Your task to perform on an android device: toggle data saver in the chrome app Image 0: 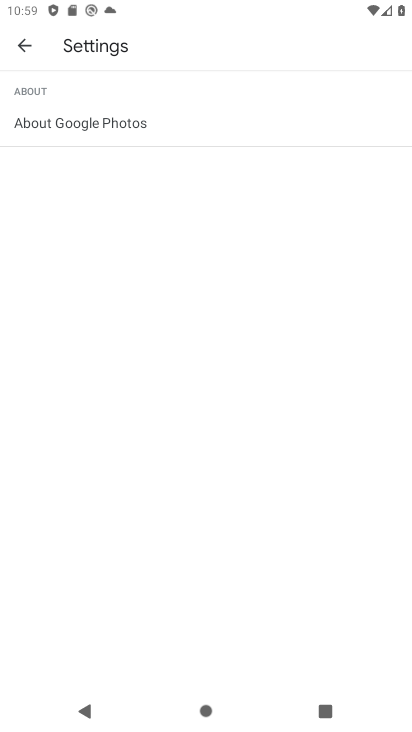
Step 0: press home button
Your task to perform on an android device: toggle data saver in the chrome app Image 1: 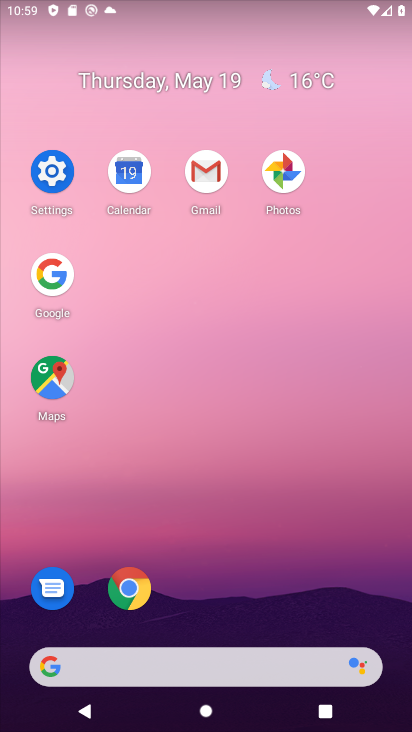
Step 1: click (139, 593)
Your task to perform on an android device: toggle data saver in the chrome app Image 2: 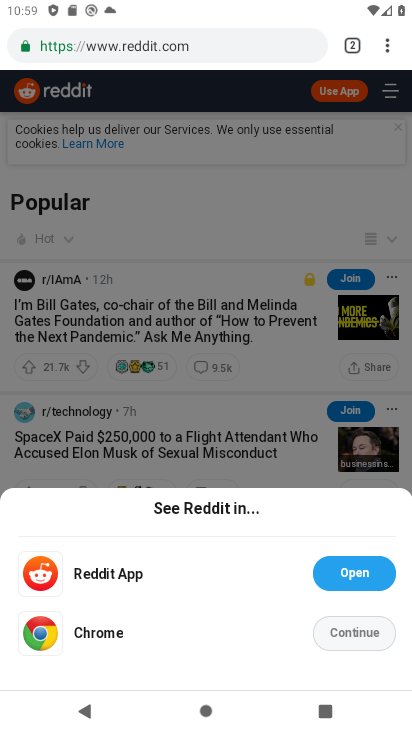
Step 2: click (386, 45)
Your task to perform on an android device: toggle data saver in the chrome app Image 3: 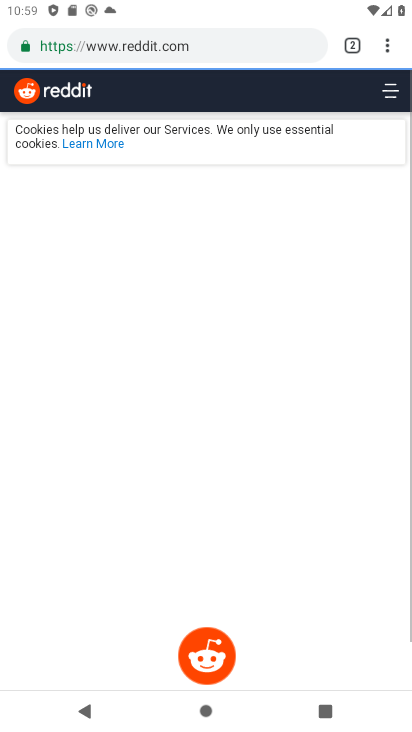
Step 3: click (400, 52)
Your task to perform on an android device: toggle data saver in the chrome app Image 4: 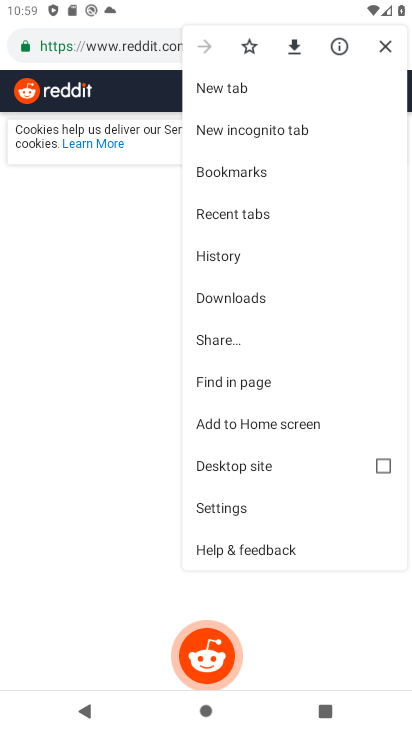
Step 4: click (267, 513)
Your task to perform on an android device: toggle data saver in the chrome app Image 5: 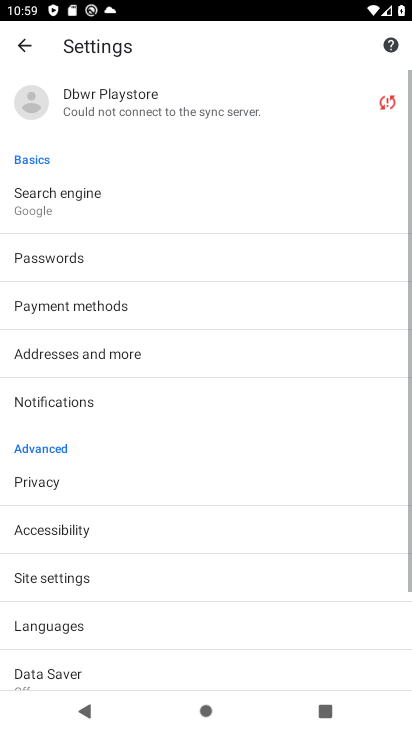
Step 5: drag from (178, 590) to (188, 275)
Your task to perform on an android device: toggle data saver in the chrome app Image 6: 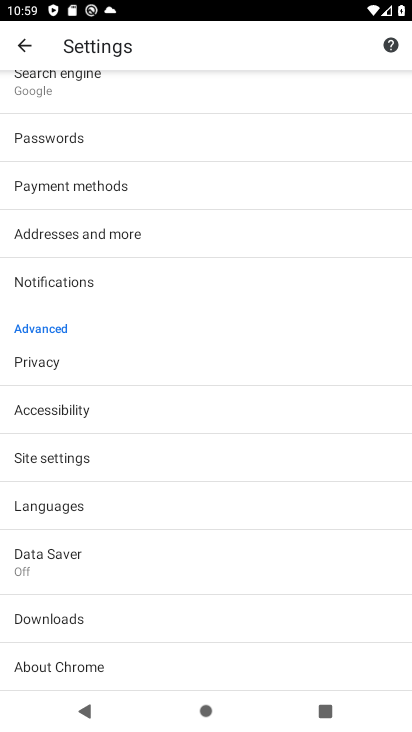
Step 6: click (95, 561)
Your task to perform on an android device: toggle data saver in the chrome app Image 7: 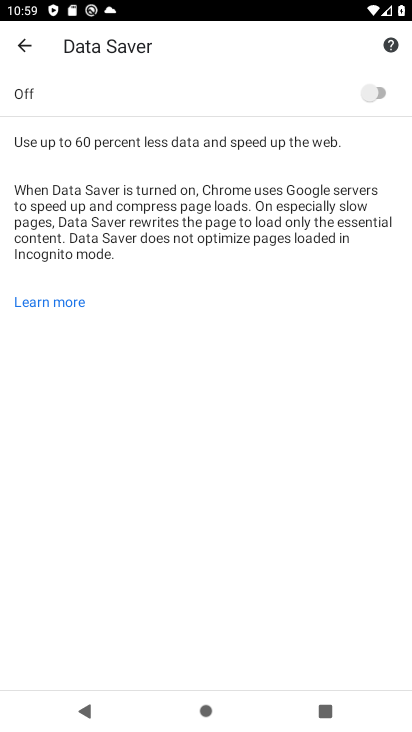
Step 7: click (371, 105)
Your task to perform on an android device: toggle data saver in the chrome app Image 8: 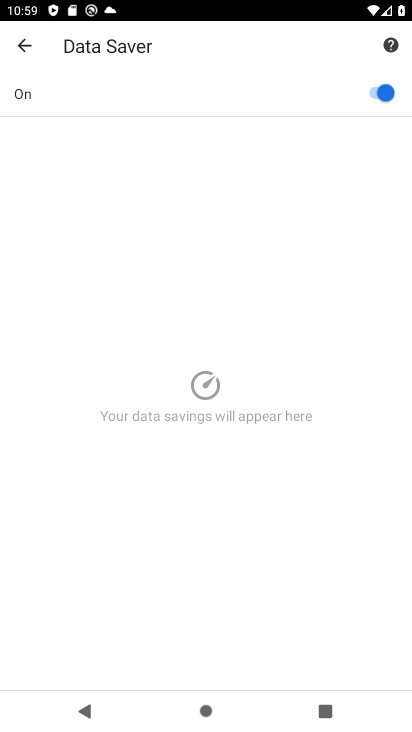
Step 8: task complete